Your task to perform on an android device: Go to Reddit.com Image 0: 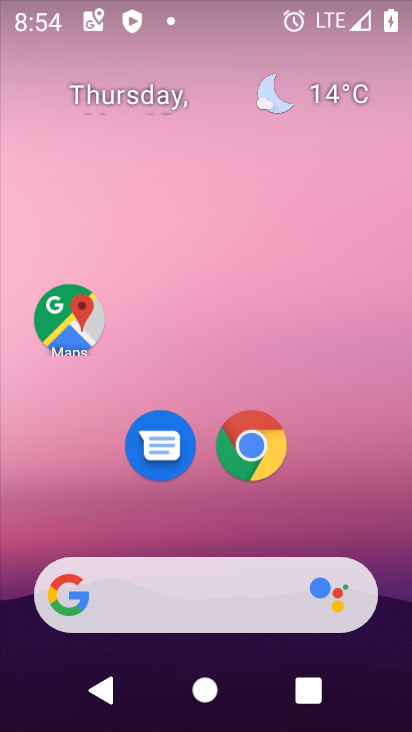
Step 0: click (257, 441)
Your task to perform on an android device: Go to Reddit.com Image 1: 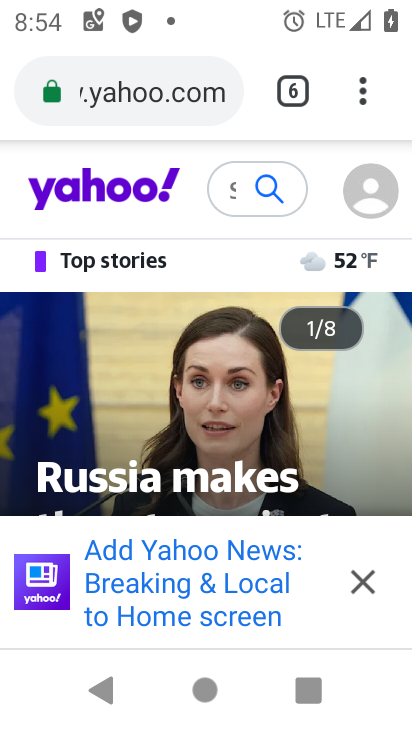
Step 1: click (365, 102)
Your task to perform on an android device: Go to Reddit.com Image 2: 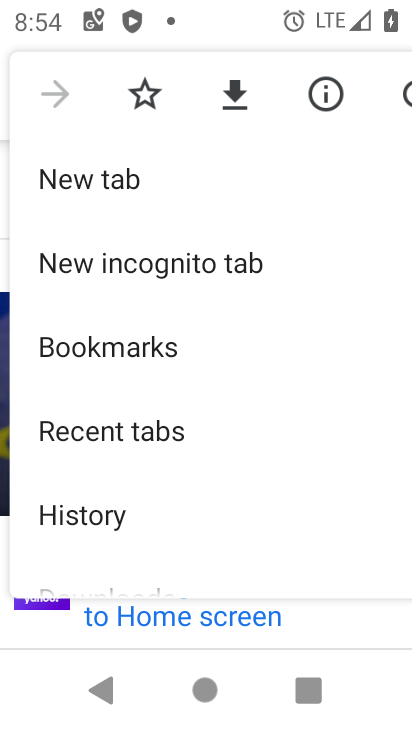
Step 2: click (123, 176)
Your task to perform on an android device: Go to Reddit.com Image 3: 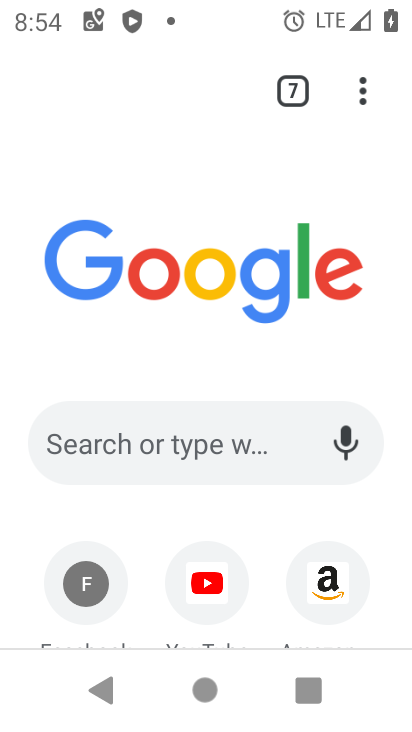
Step 3: click (173, 452)
Your task to perform on an android device: Go to Reddit.com Image 4: 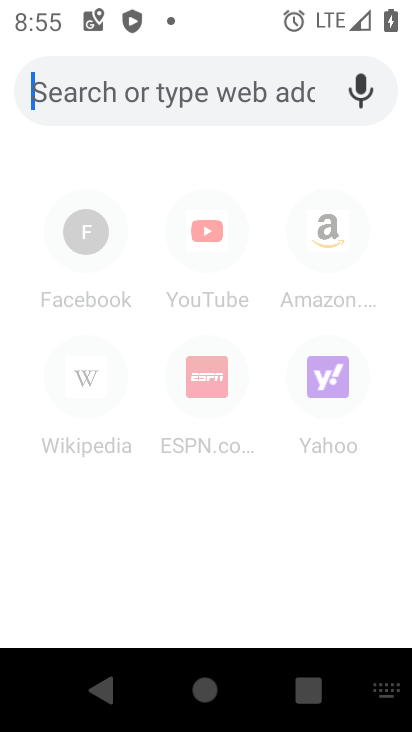
Step 4: type "Reddit.com"
Your task to perform on an android device: Go to Reddit.com Image 5: 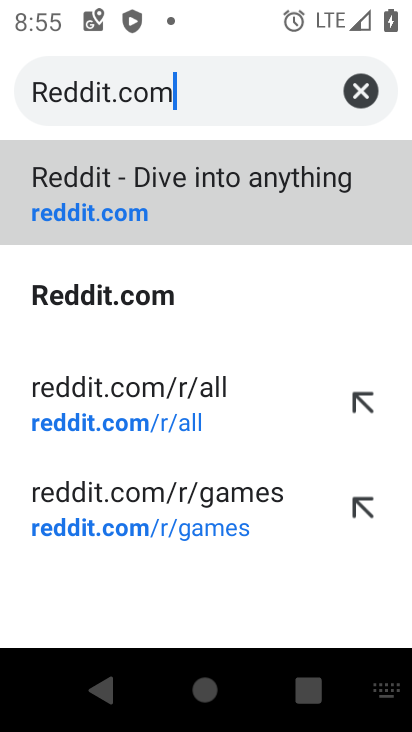
Step 5: click (121, 195)
Your task to perform on an android device: Go to Reddit.com Image 6: 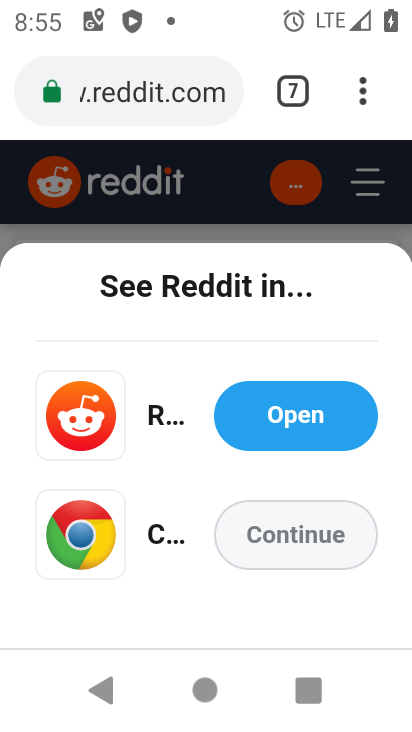
Step 6: task complete